Your task to perform on an android device: Open Google Chrome Image 0: 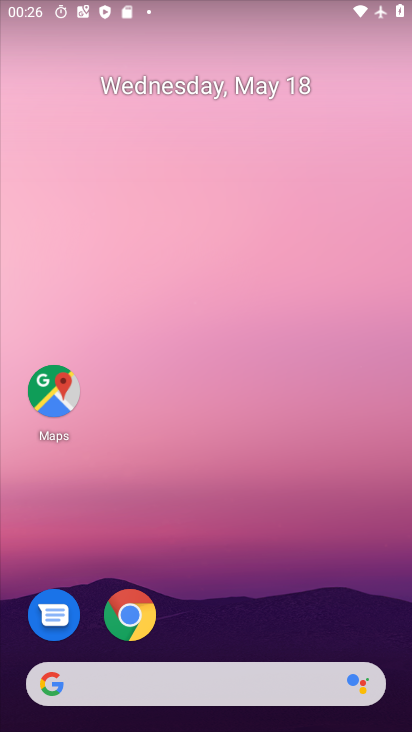
Step 0: click (159, 617)
Your task to perform on an android device: Open Google Chrome Image 1: 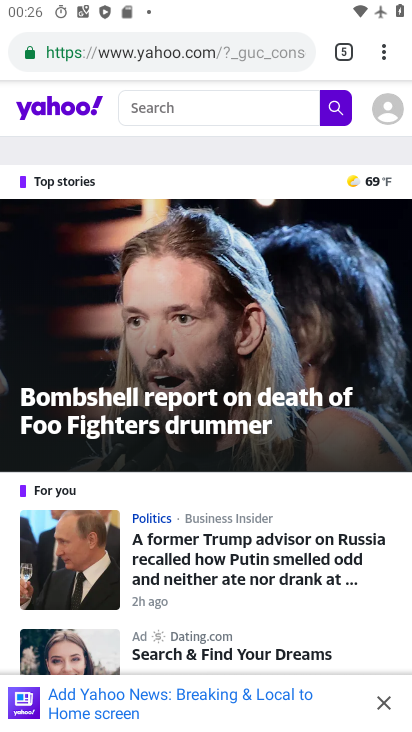
Step 1: task complete